Your task to perform on an android device: Open Google Chrome and open the bookmarks view Image 0: 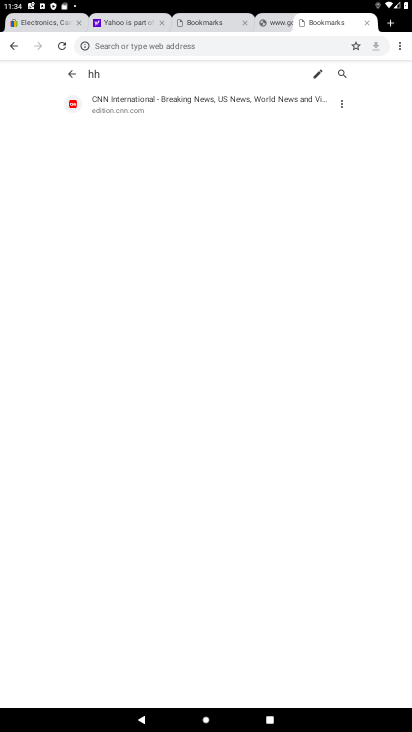
Step 0: press home button
Your task to perform on an android device: Open Google Chrome and open the bookmarks view Image 1: 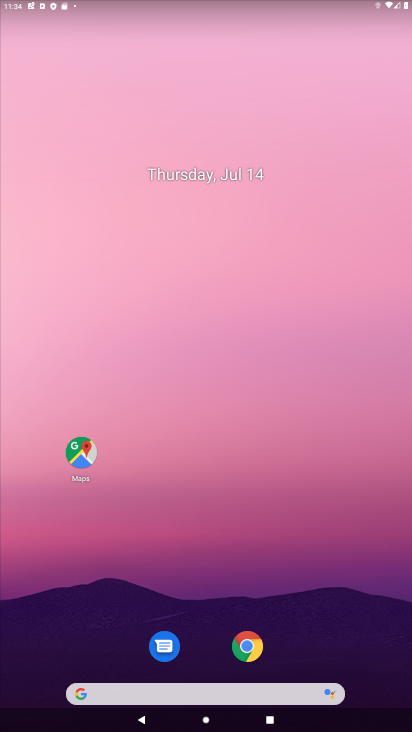
Step 1: click (255, 638)
Your task to perform on an android device: Open Google Chrome and open the bookmarks view Image 2: 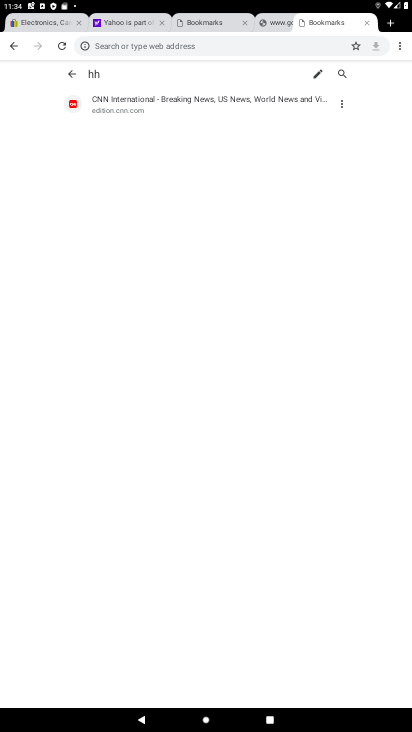
Step 2: click (394, 44)
Your task to perform on an android device: Open Google Chrome and open the bookmarks view Image 3: 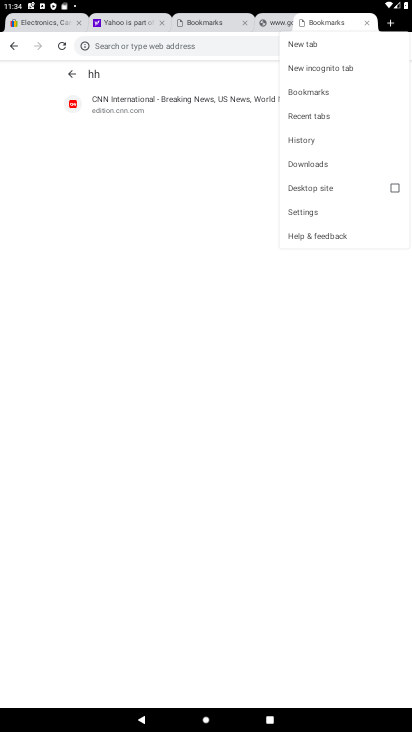
Step 3: click (322, 99)
Your task to perform on an android device: Open Google Chrome and open the bookmarks view Image 4: 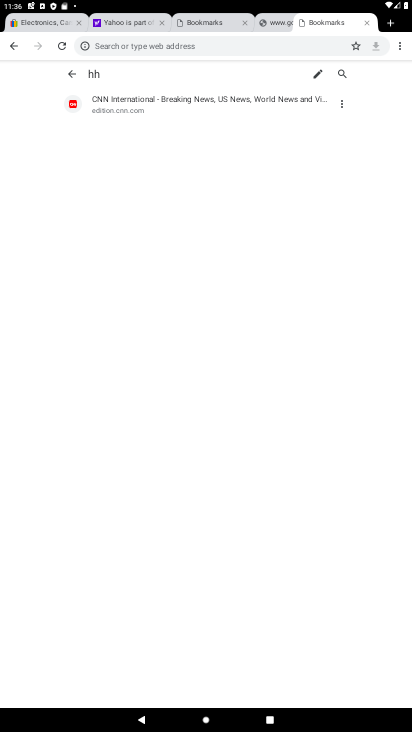
Step 4: task complete